Your task to perform on an android device: turn off improve location accuracy Image 0: 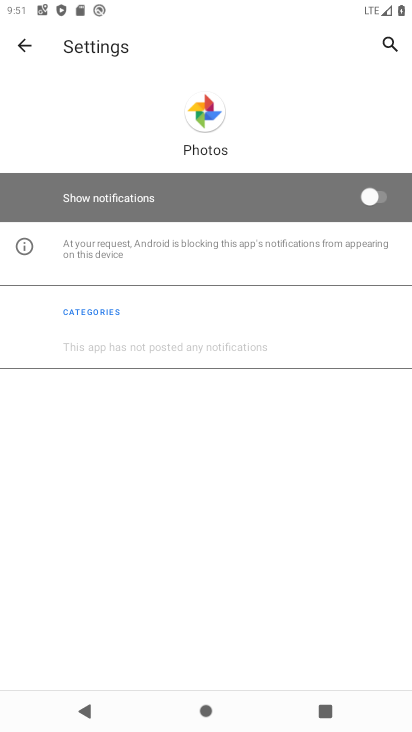
Step 0: press home button
Your task to perform on an android device: turn off improve location accuracy Image 1: 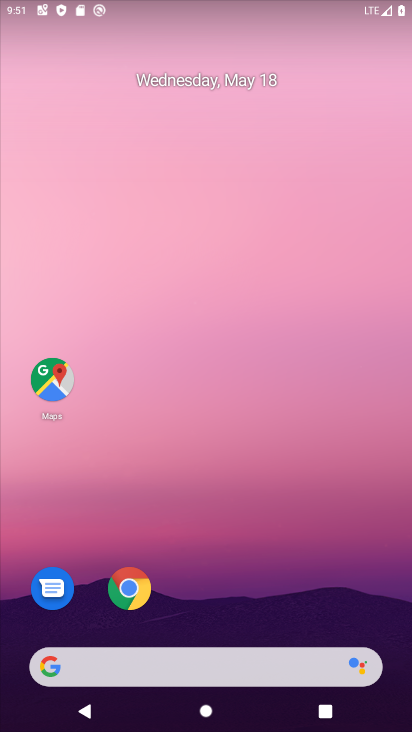
Step 1: drag from (308, 615) to (297, 78)
Your task to perform on an android device: turn off improve location accuracy Image 2: 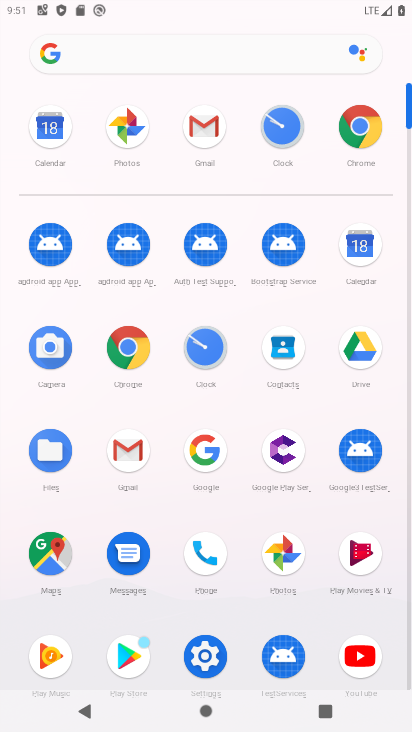
Step 2: click (204, 663)
Your task to perform on an android device: turn off improve location accuracy Image 3: 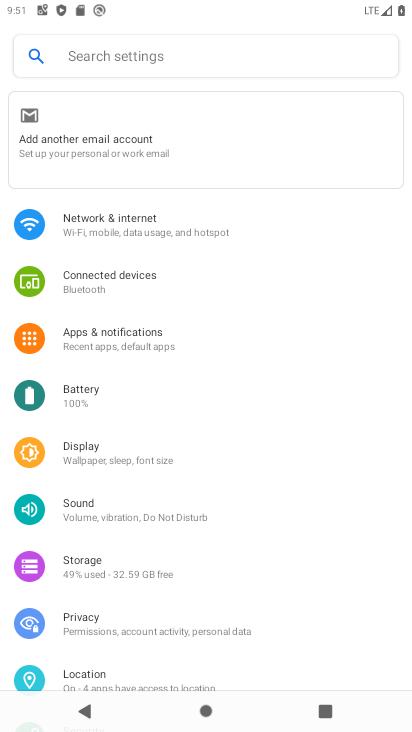
Step 3: drag from (284, 636) to (282, 528)
Your task to perform on an android device: turn off improve location accuracy Image 4: 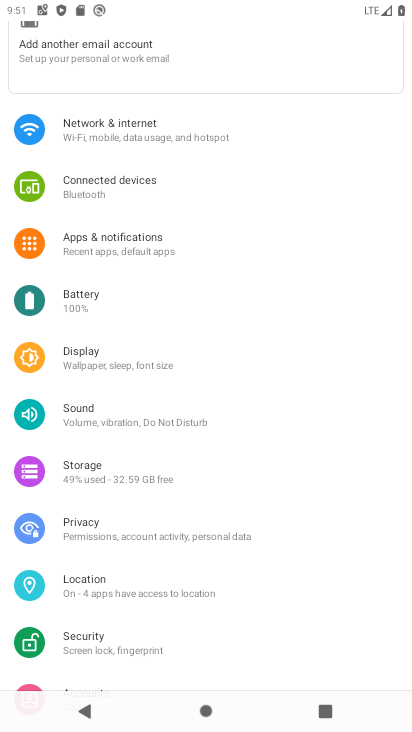
Step 4: click (86, 590)
Your task to perform on an android device: turn off improve location accuracy Image 5: 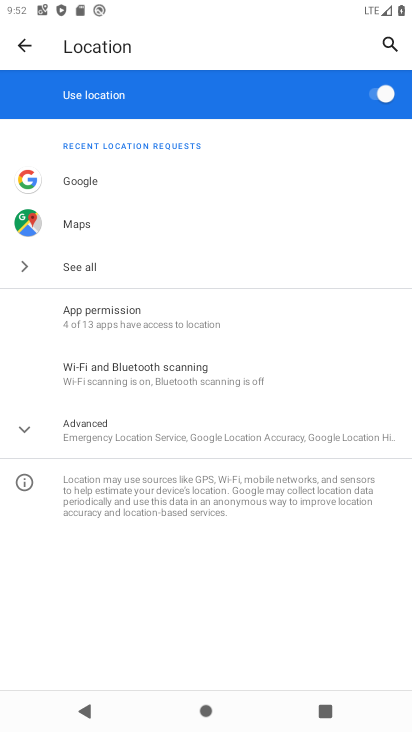
Step 5: click (25, 430)
Your task to perform on an android device: turn off improve location accuracy Image 6: 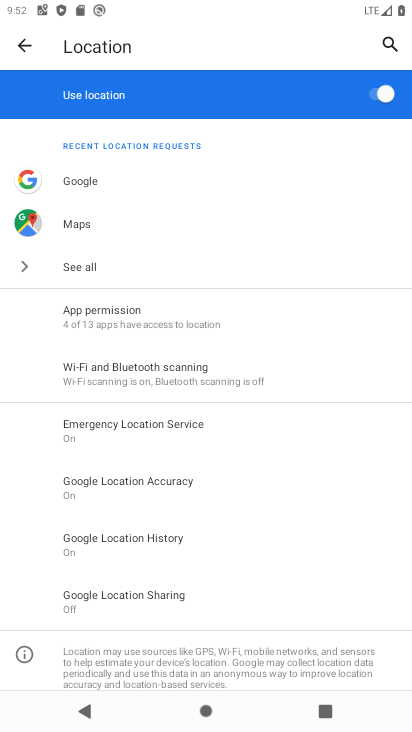
Step 6: click (93, 489)
Your task to perform on an android device: turn off improve location accuracy Image 7: 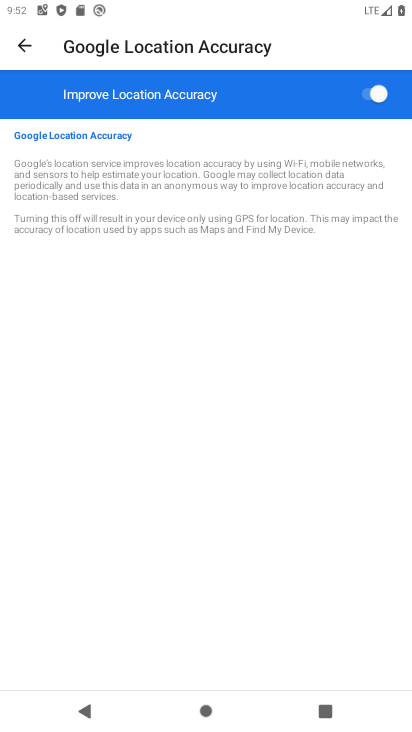
Step 7: click (374, 98)
Your task to perform on an android device: turn off improve location accuracy Image 8: 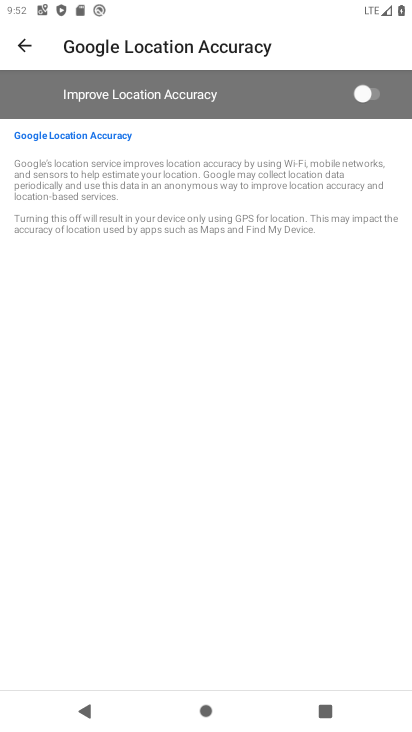
Step 8: task complete